Your task to perform on an android device: Open Youtube and go to "Your channel" Image 0: 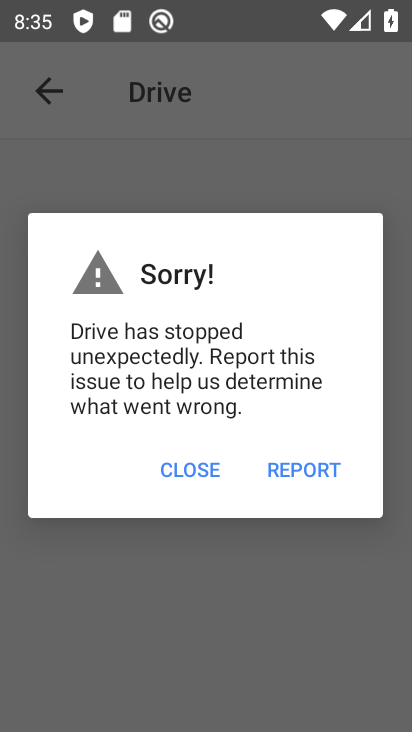
Step 0: press home button
Your task to perform on an android device: Open Youtube and go to "Your channel" Image 1: 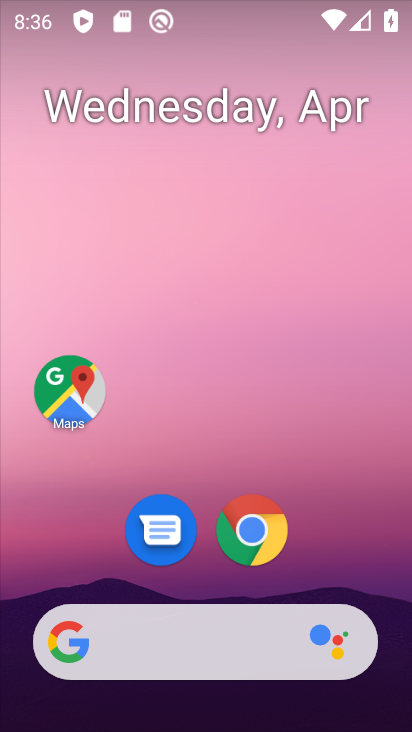
Step 1: drag from (337, 550) to (283, 34)
Your task to perform on an android device: Open Youtube and go to "Your channel" Image 2: 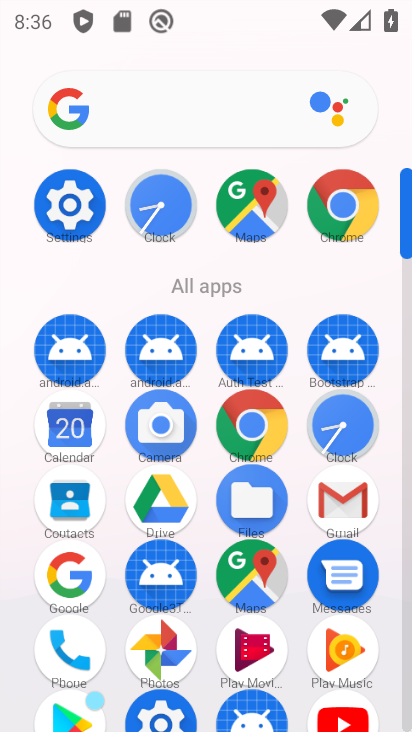
Step 2: click (346, 712)
Your task to perform on an android device: Open Youtube and go to "Your channel" Image 3: 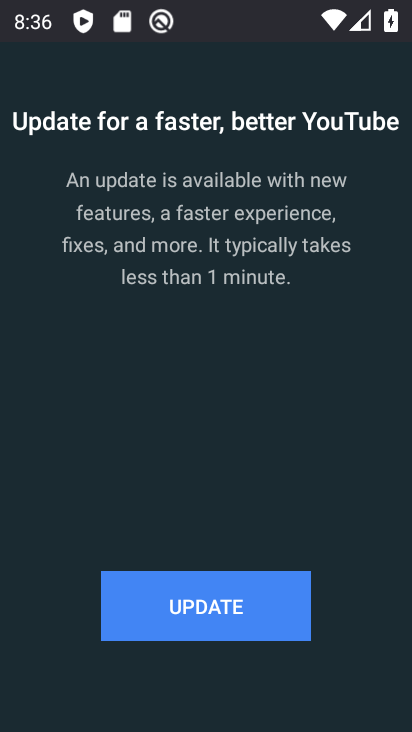
Step 3: click (201, 605)
Your task to perform on an android device: Open Youtube and go to "Your channel" Image 4: 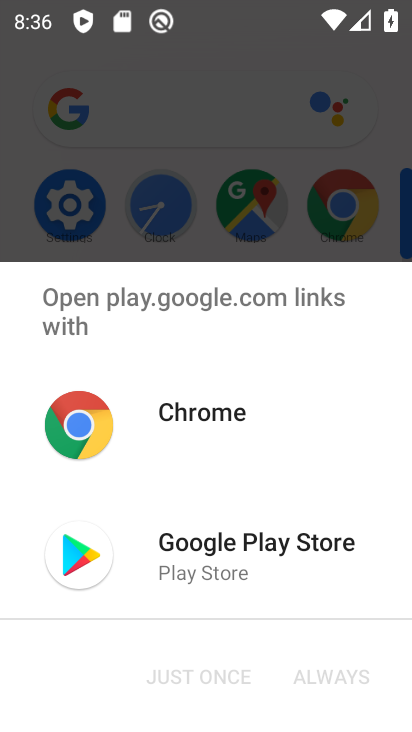
Step 4: click (274, 538)
Your task to perform on an android device: Open Youtube and go to "Your channel" Image 5: 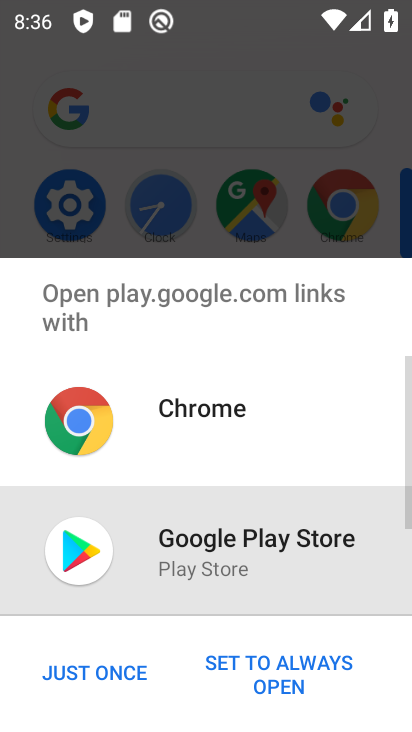
Step 5: click (95, 680)
Your task to perform on an android device: Open Youtube and go to "Your channel" Image 6: 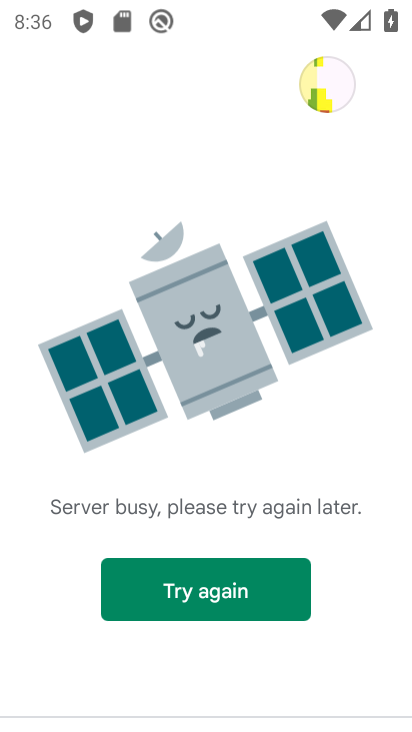
Step 6: task complete